Your task to perform on an android device: change your default location settings in chrome Image 0: 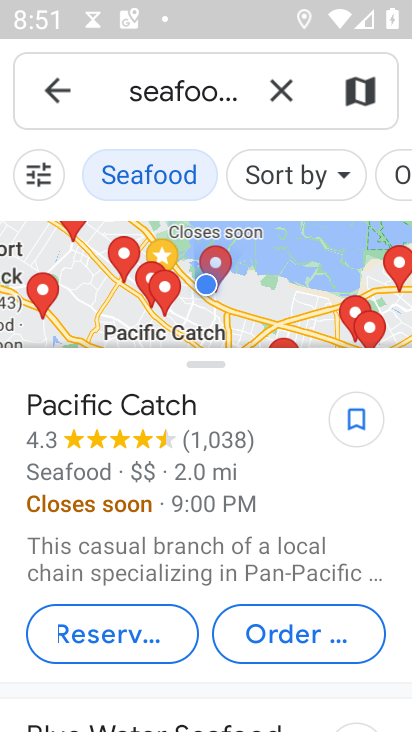
Step 0: press home button
Your task to perform on an android device: change your default location settings in chrome Image 1: 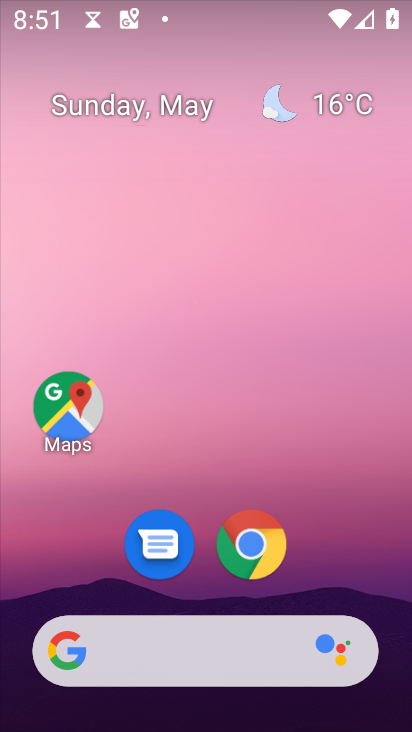
Step 1: click (283, 563)
Your task to perform on an android device: change your default location settings in chrome Image 2: 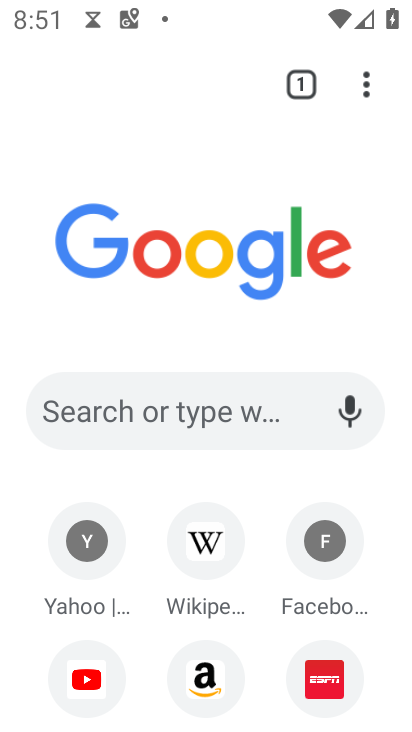
Step 2: click (358, 83)
Your task to perform on an android device: change your default location settings in chrome Image 3: 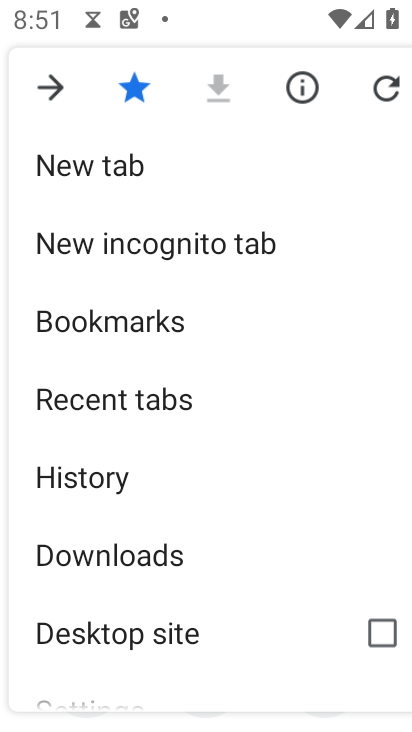
Step 3: drag from (161, 590) to (163, 287)
Your task to perform on an android device: change your default location settings in chrome Image 4: 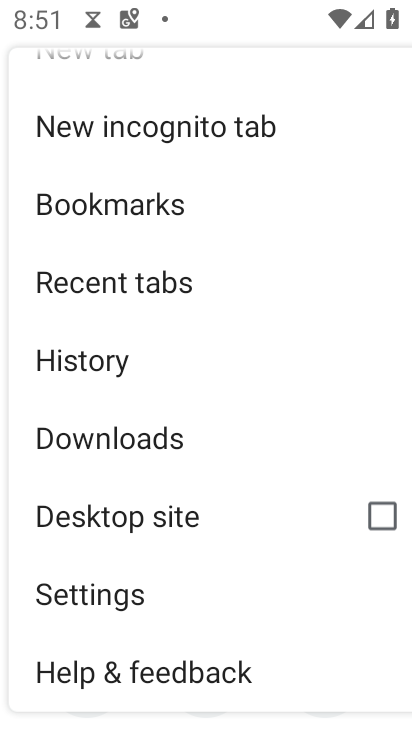
Step 4: click (94, 610)
Your task to perform on an android device: change your default location settings in chrome Image 5: 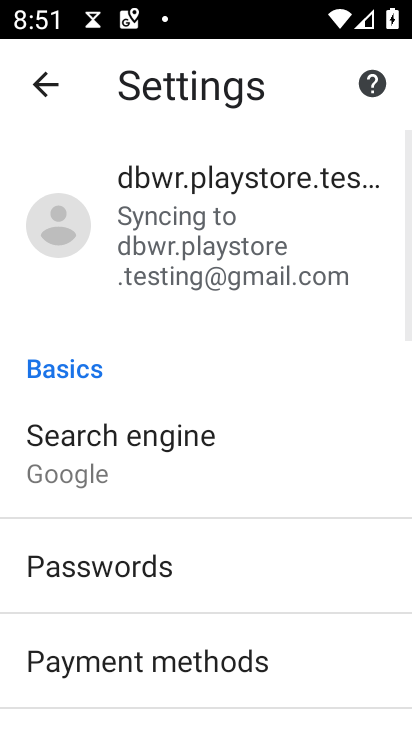
Step 5: drag from (237, 659) to (192, 271)
Your task to perform on an android device: change your default location settings in chrome Image 6: 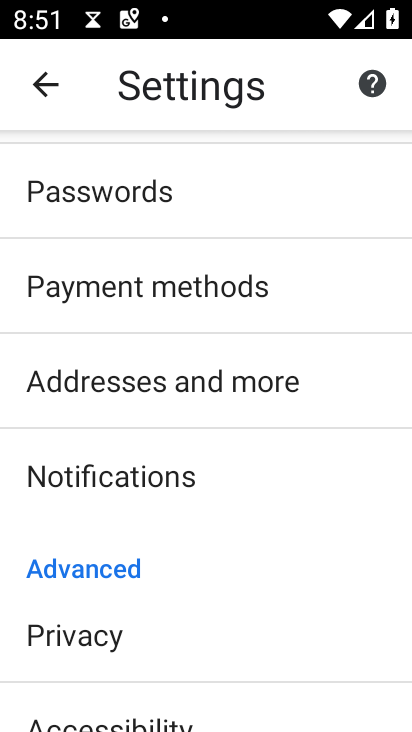
Step 6: drag from (163, 617) to (181, 277)
Your task to perform on an android device: change your default location settings in chrome Image 7: 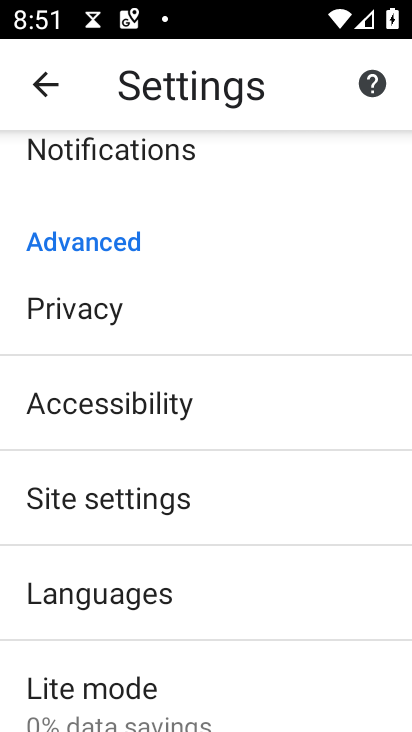
Step 7: click (127, 516)
Your task to perform on an android device: change your default location settings in chrome Image 8: 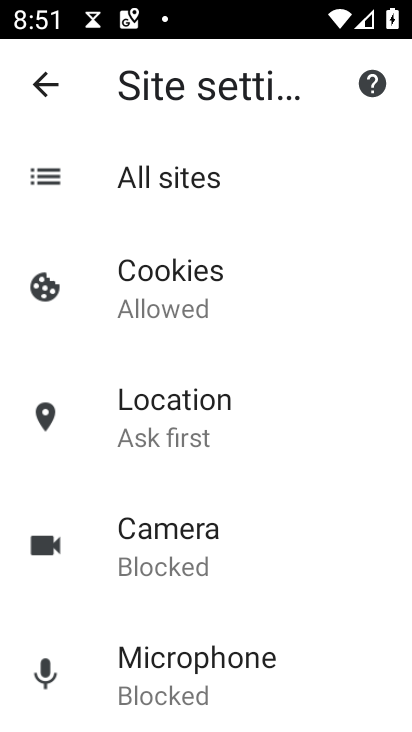
Step 8: click (148, 409)
Your task to perform on an android device: change your default location settings in chrome Image 9: 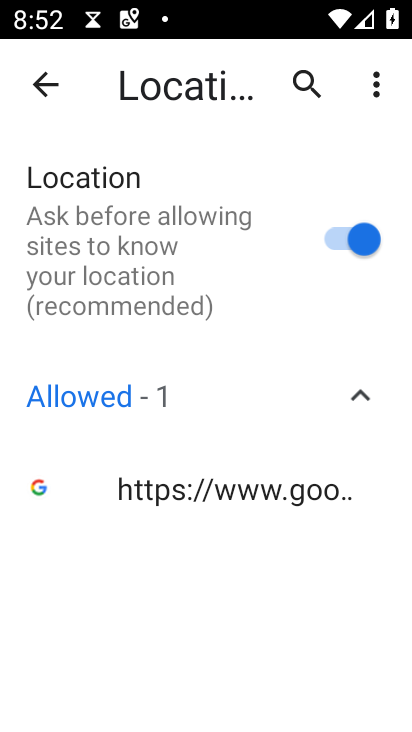
Step 9: click (349, 250)
Your task to perform on an android device: change your default location settings in chrome Image 10: 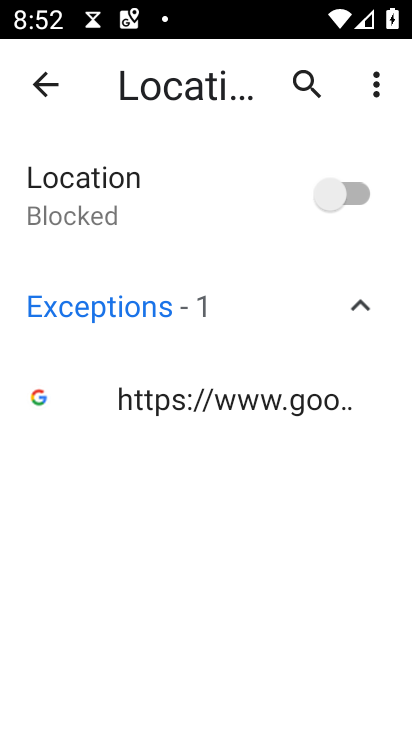
Step 10: click (351, 195)
Your task to perform on an android device: change your default location settings in chrome Image 11: 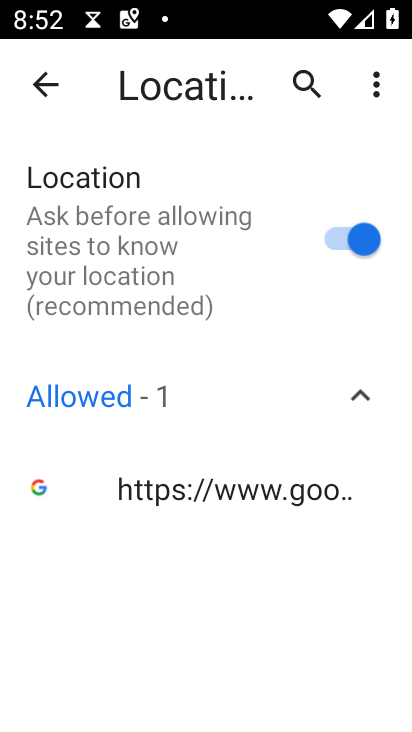
Step 11: task complete